Your task to perform on an android device: Open Amazon Image 0: 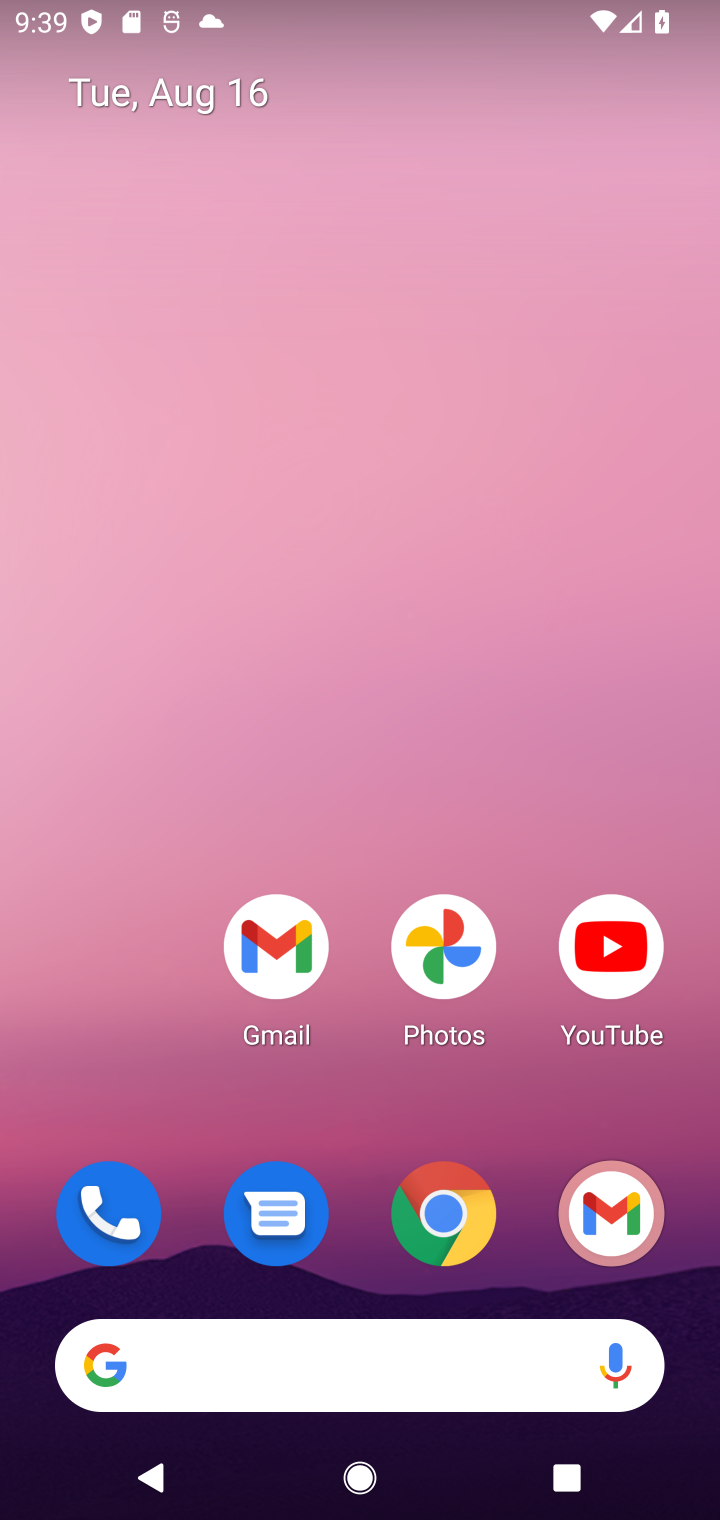
Step 0: drag from (392, 1189) to (429, 487)
Your task to perform on an android device: Open Amazon Image 1: 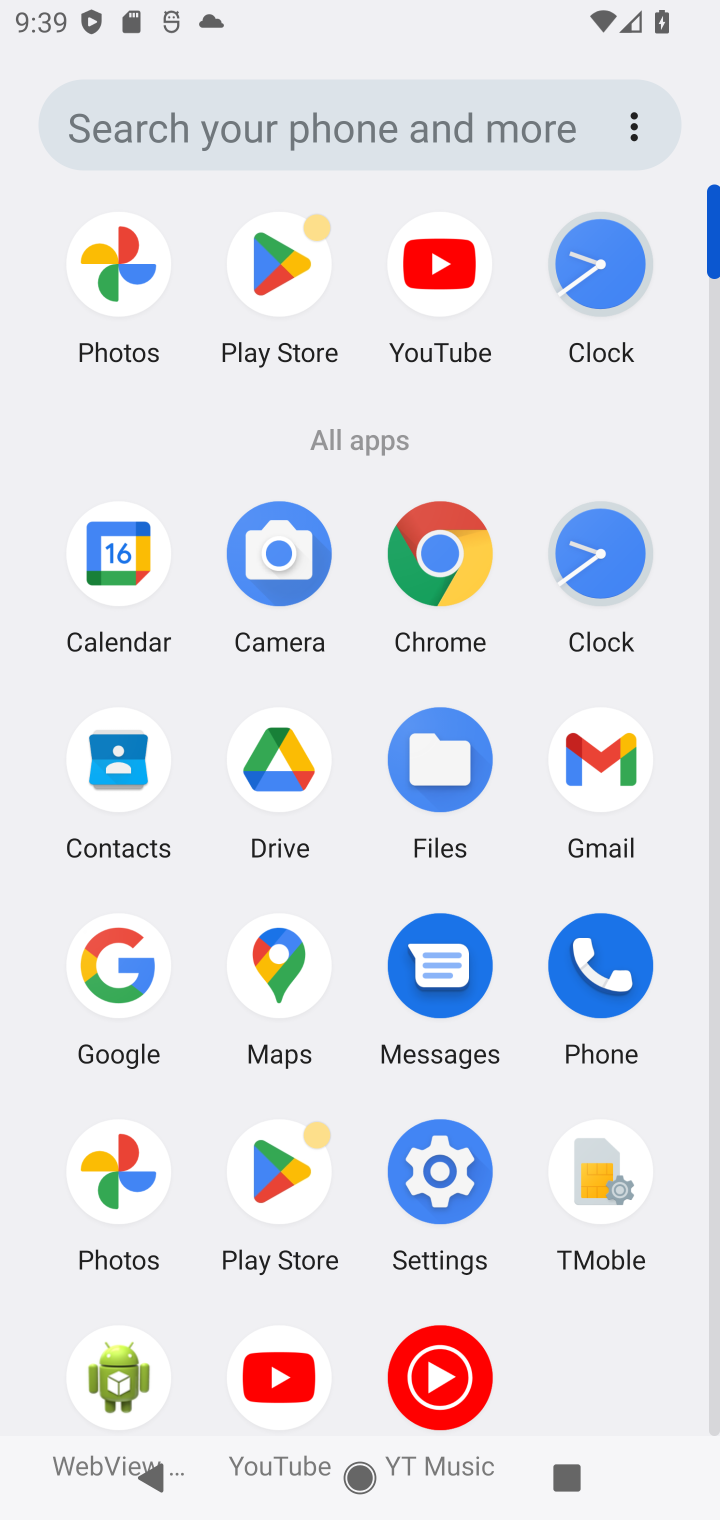
Step 1: click (435, 553)
Your task to perform on an android device: Open Amazon Image 2: 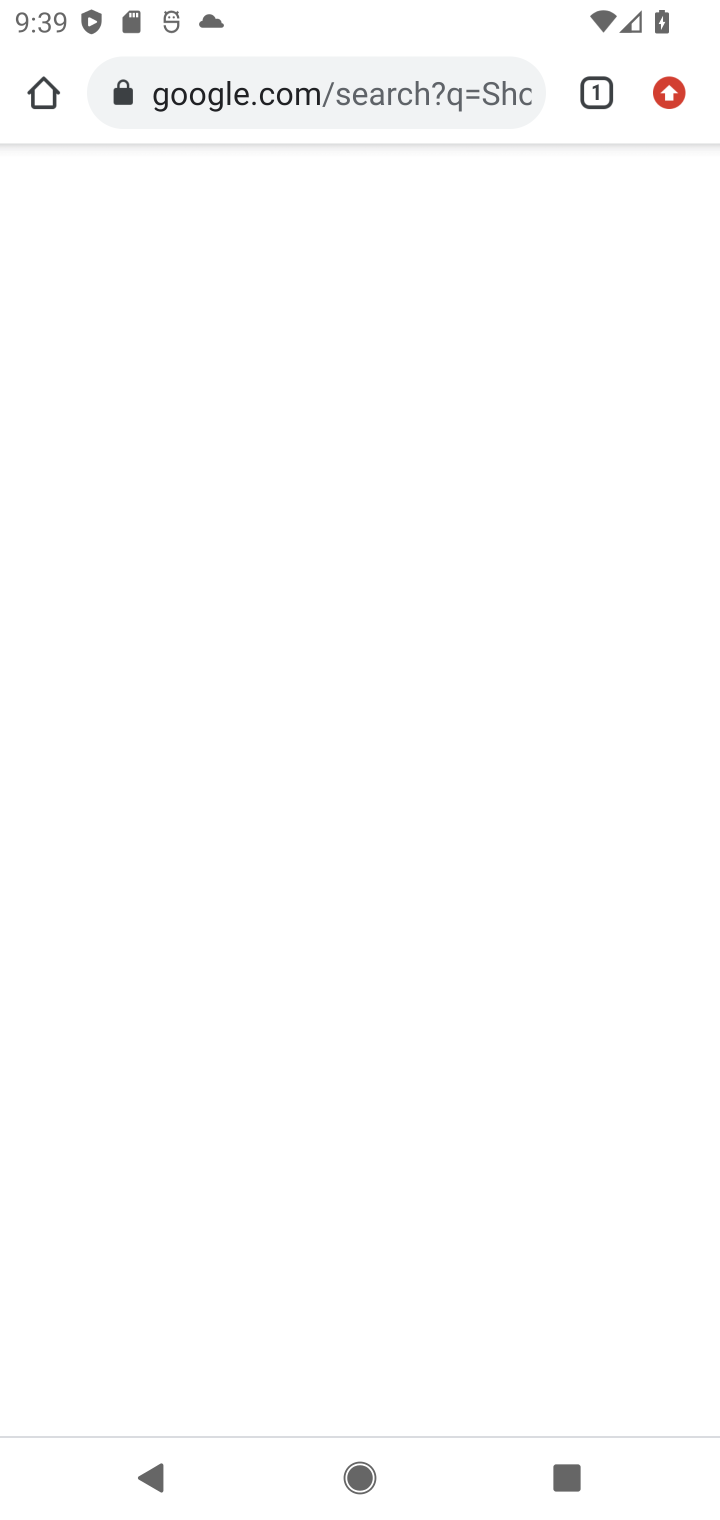
Step 2: click (697, 76)
Your task to perform on an android device: Open Amazon Image 3: 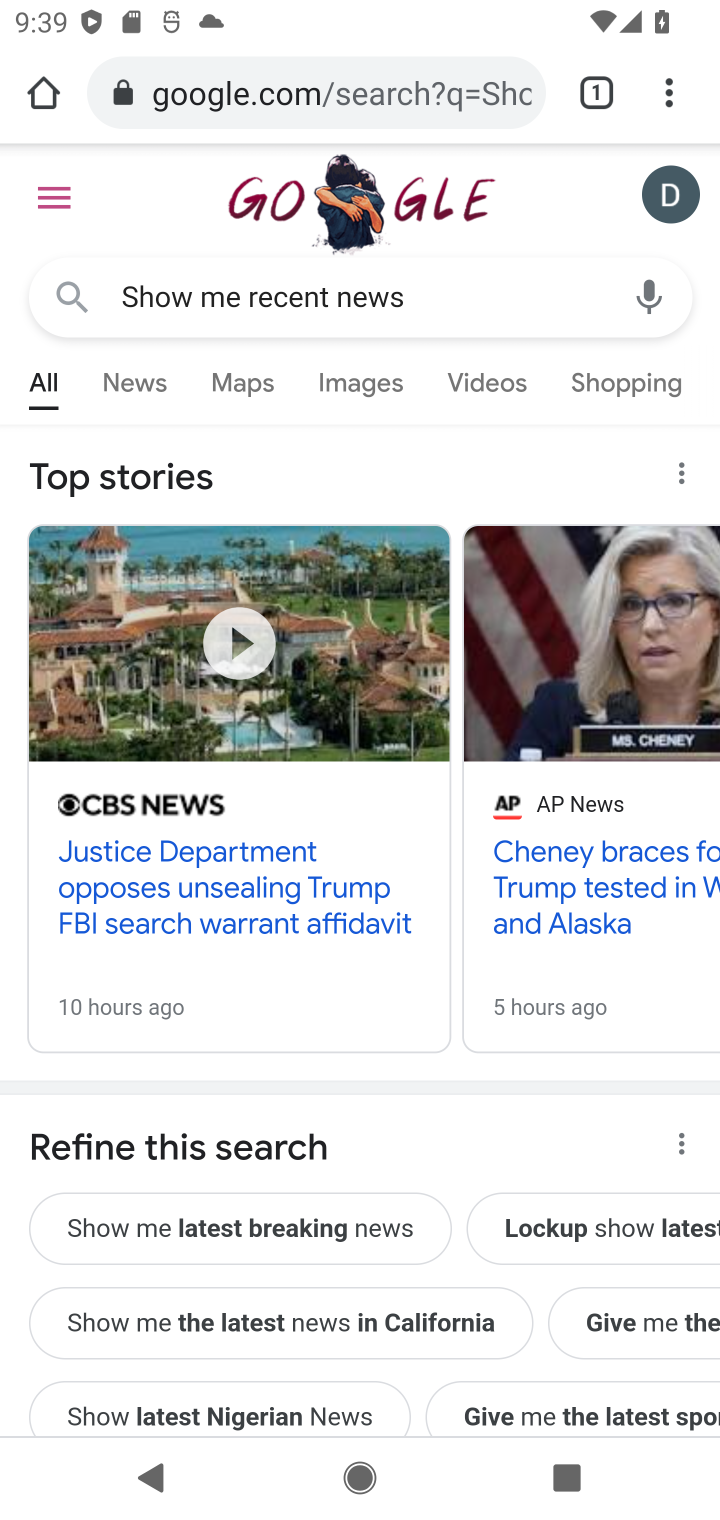
Step 3: click (695, 86)
Your task to perform on an android device: Open Amazon Image 4: 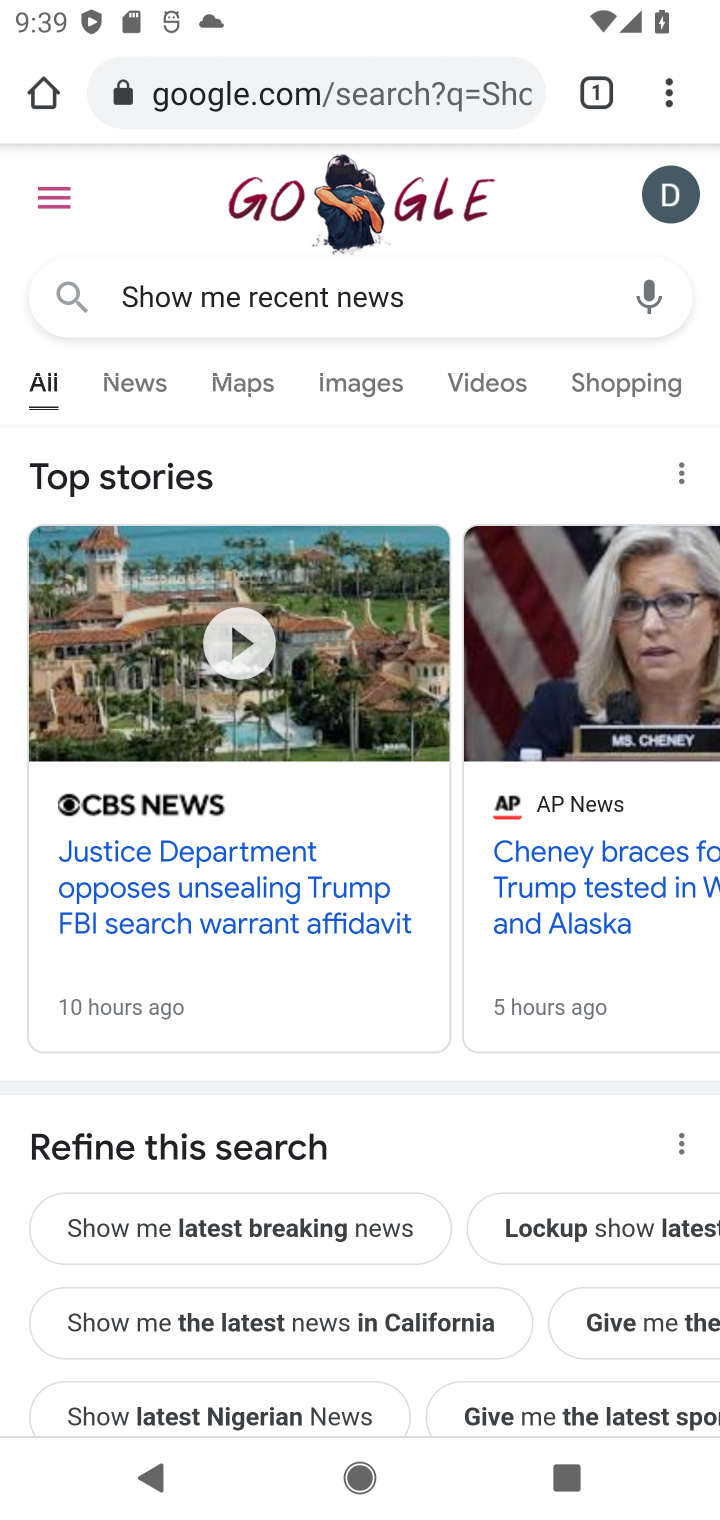
Step 4: click (659, 78)
Your task to perform on an android device: Open Amazon Image 5: 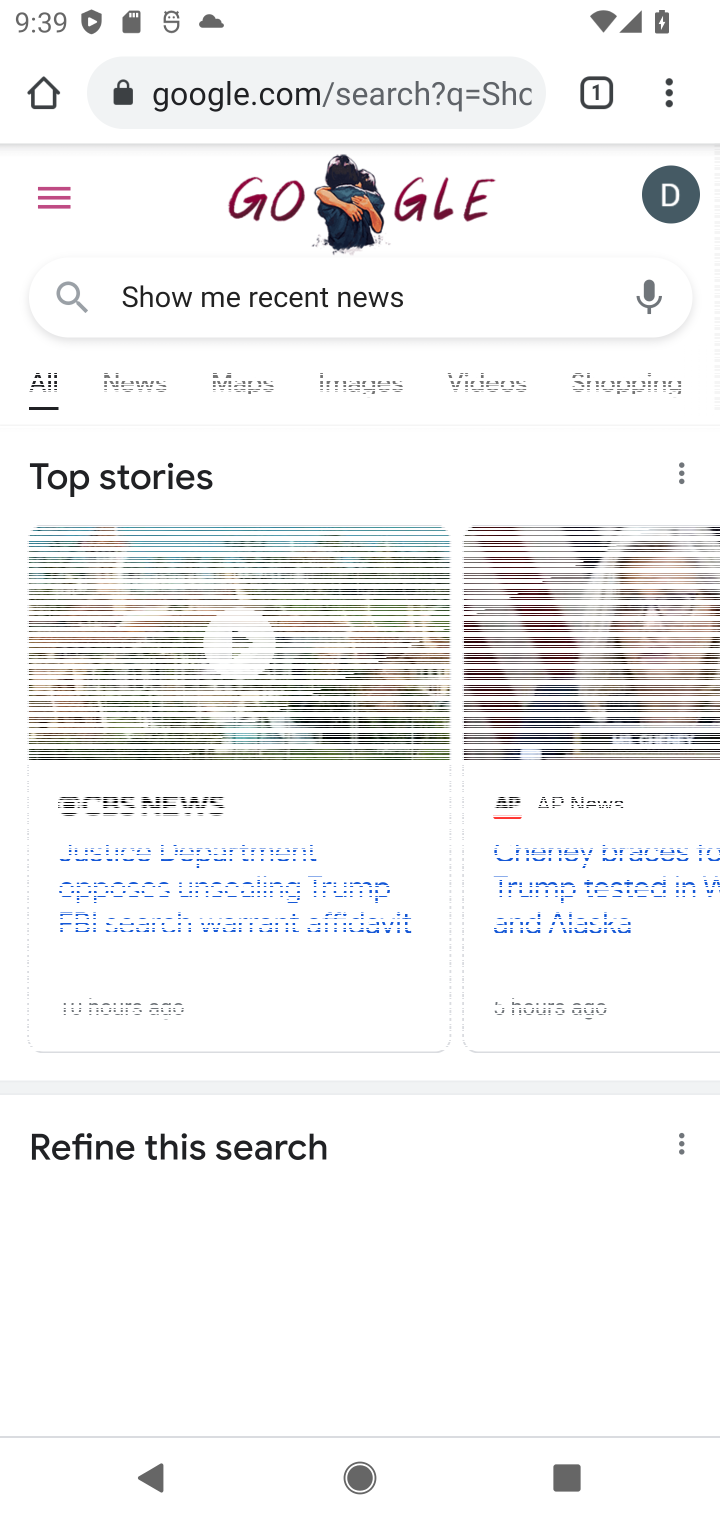
Step 5: click (693, 103)
Your task to perform on an android device: Open Amazon Image 6: 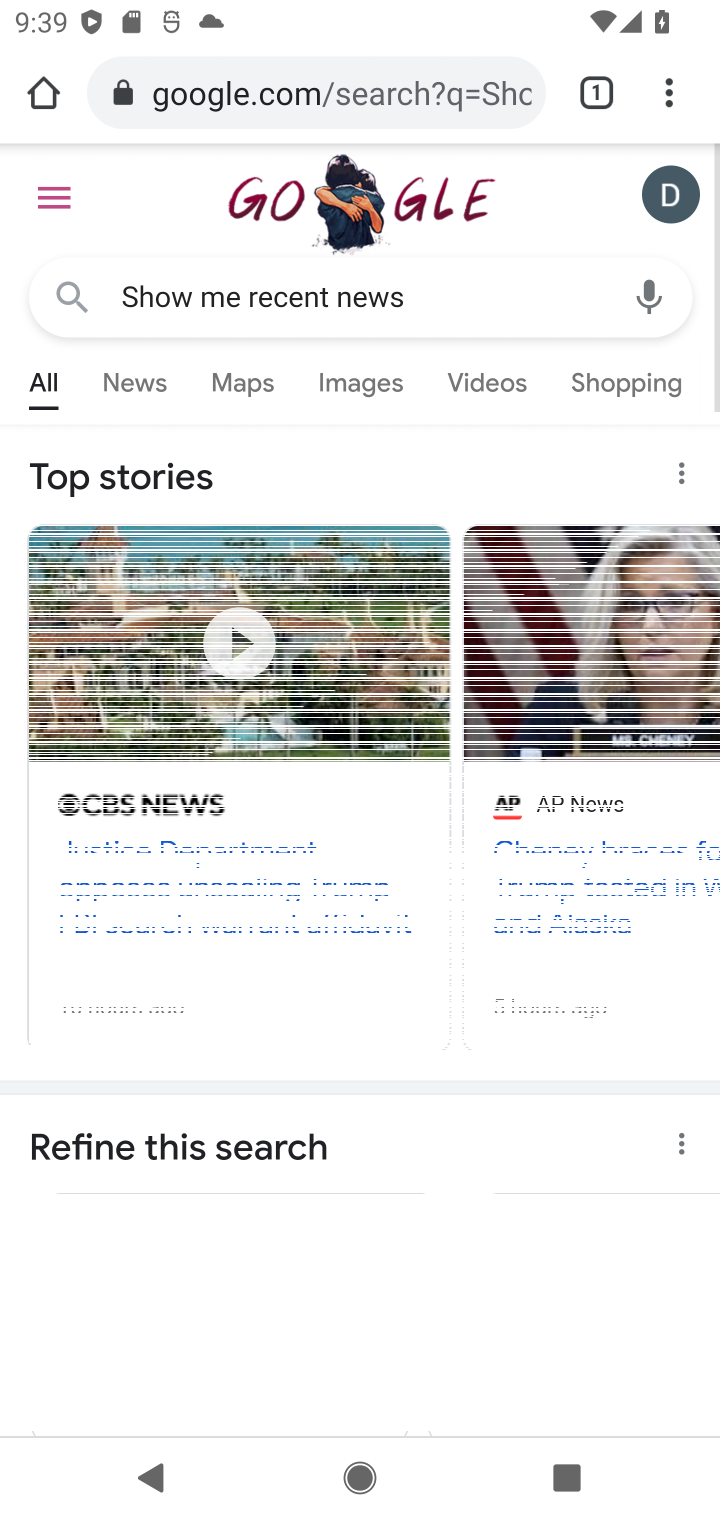
Step 6: click (670, 108)
Your task to perform on an android device: Open Amazon Image 7: 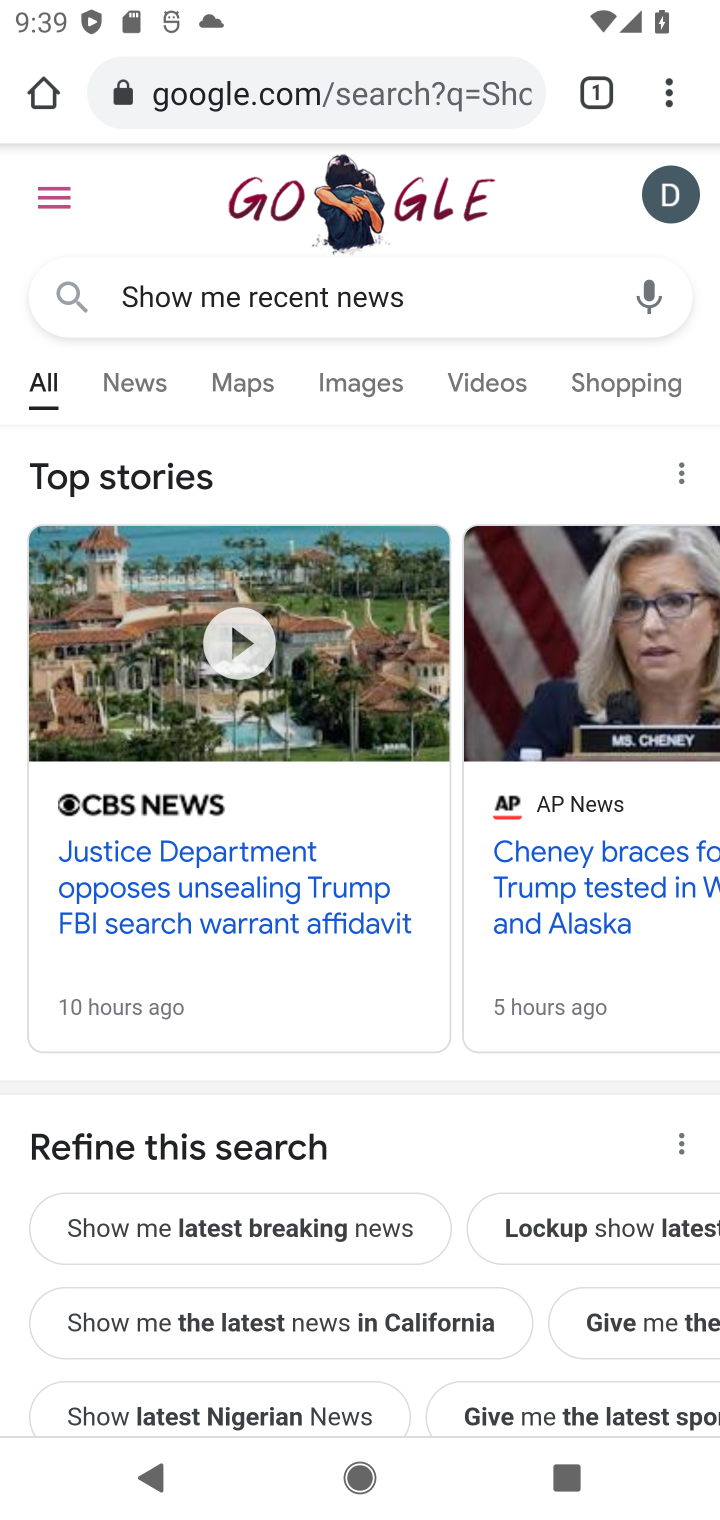
Step 7: click (662, 90)
Your task to perform on an android device: Open Amazon Image 8: 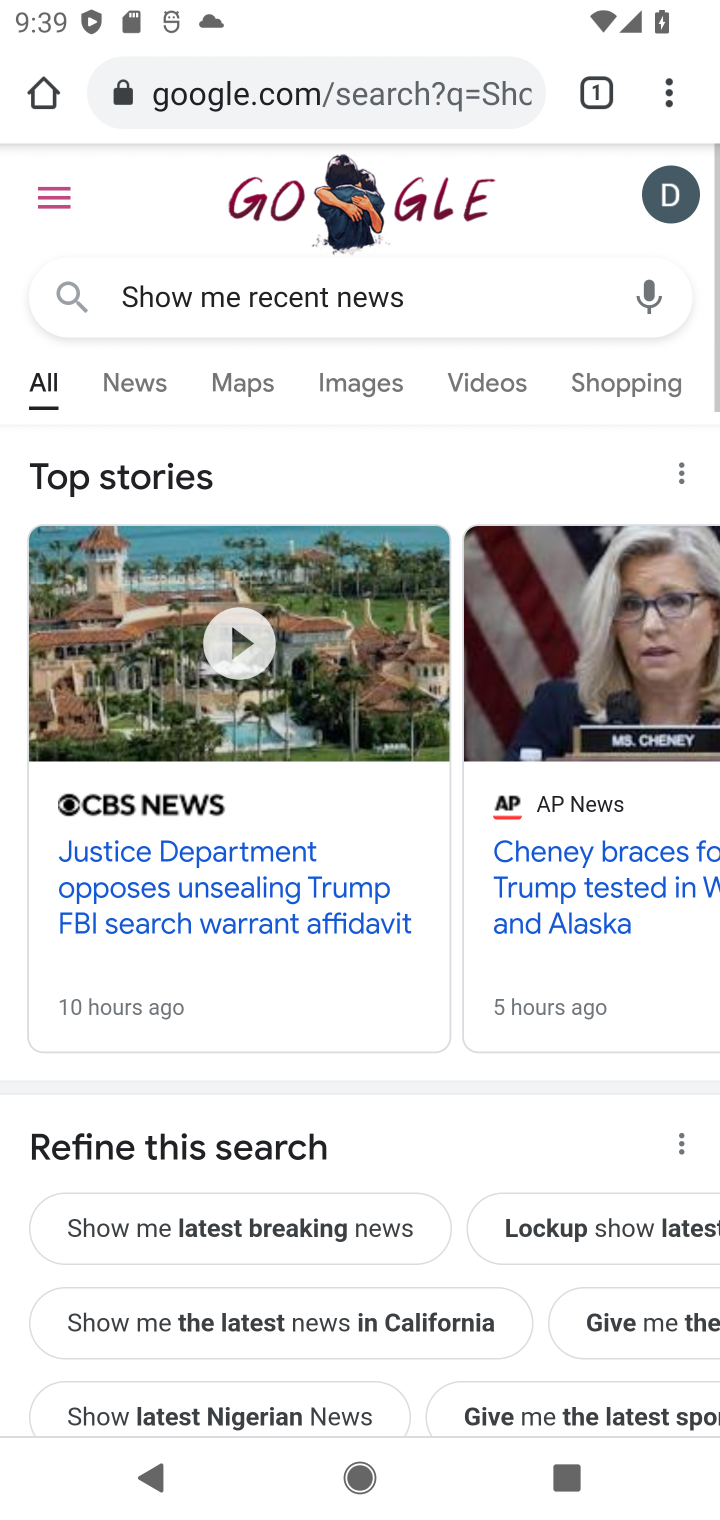
Step 8: click (660, 99)
Your task to perform on an android device: Open Amazon Image 9: 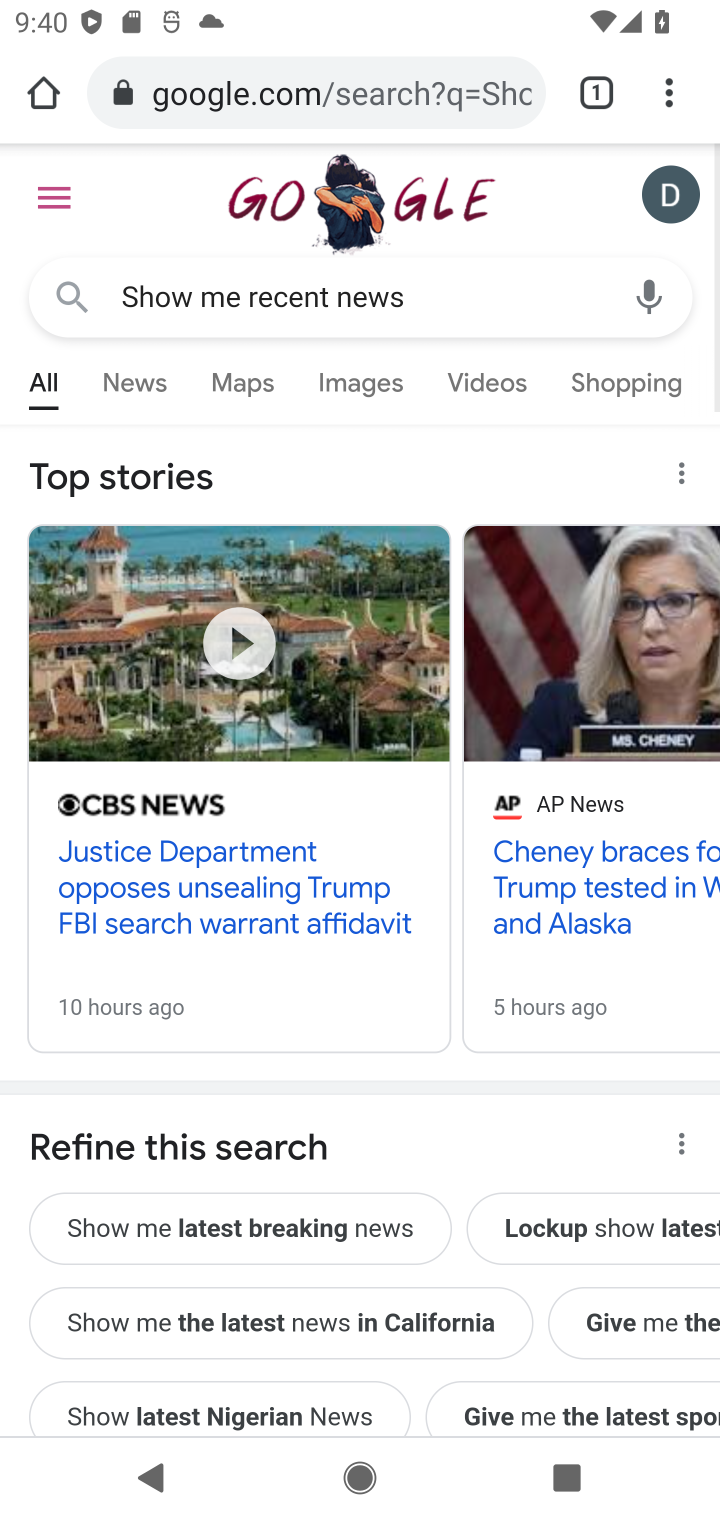
Step 9: click (683, 91)
Your task to perform on an android device: Open Amazon Image 10: 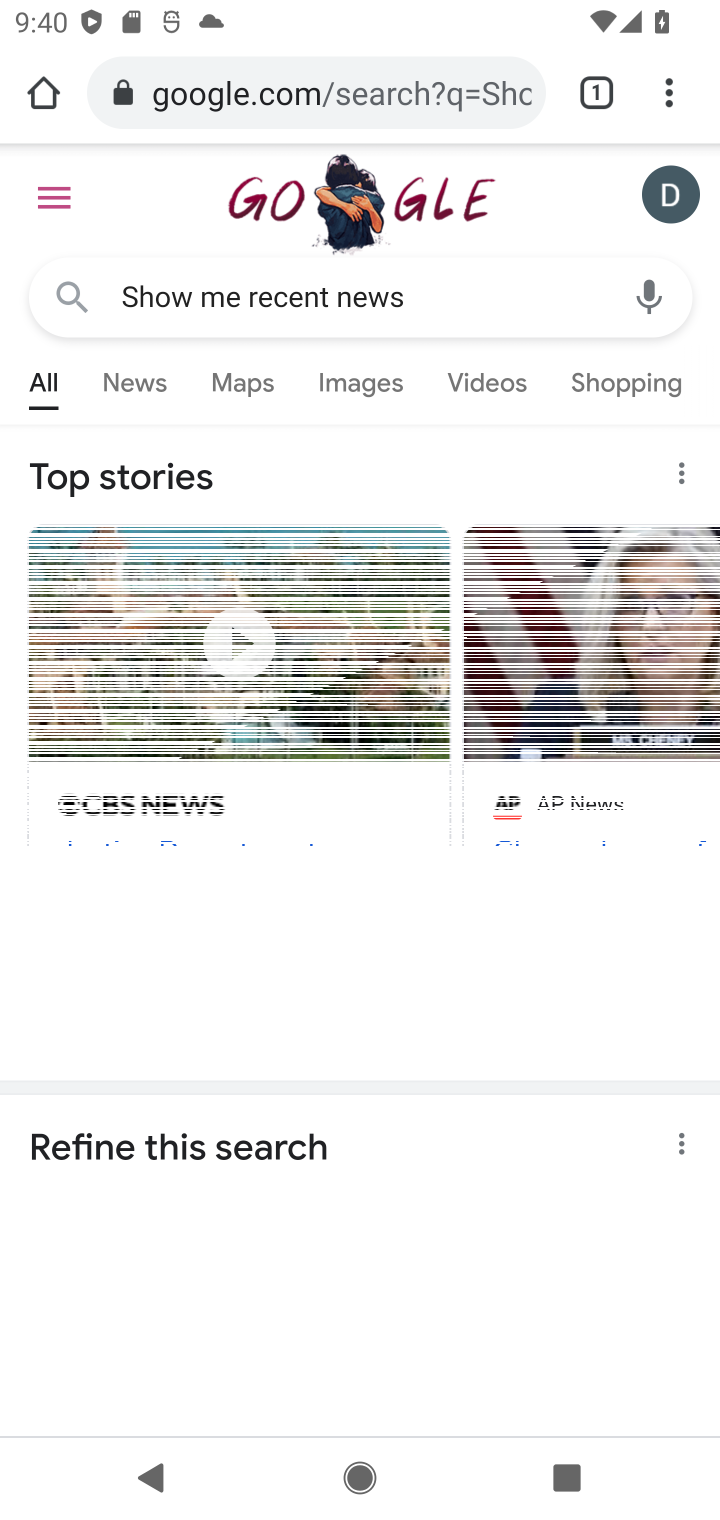
Step 10: click (651, 79)
Your task to perform on an android device: Open Amazon Image 11: 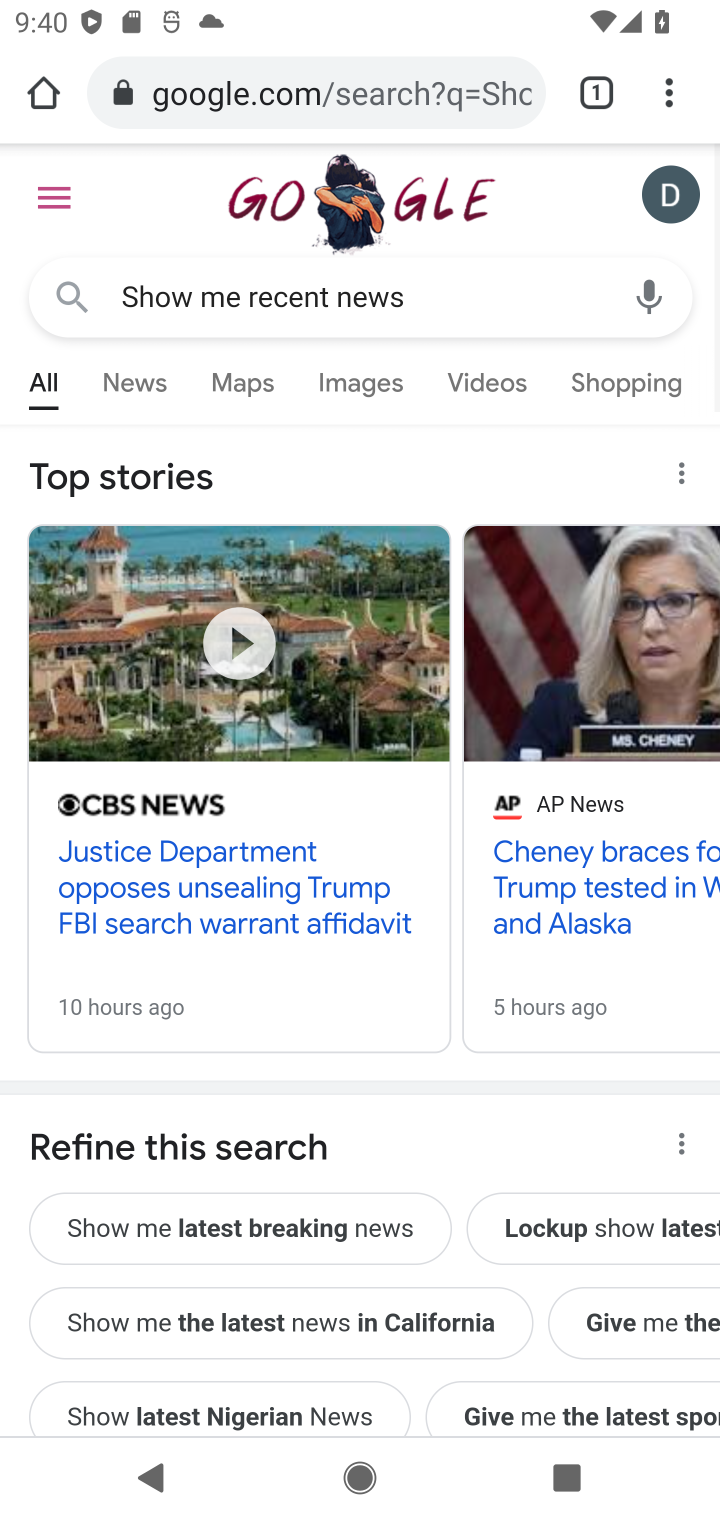
Step 11: click (655, 76)
Your task to perform on an android device: Open Amazon Image 12: 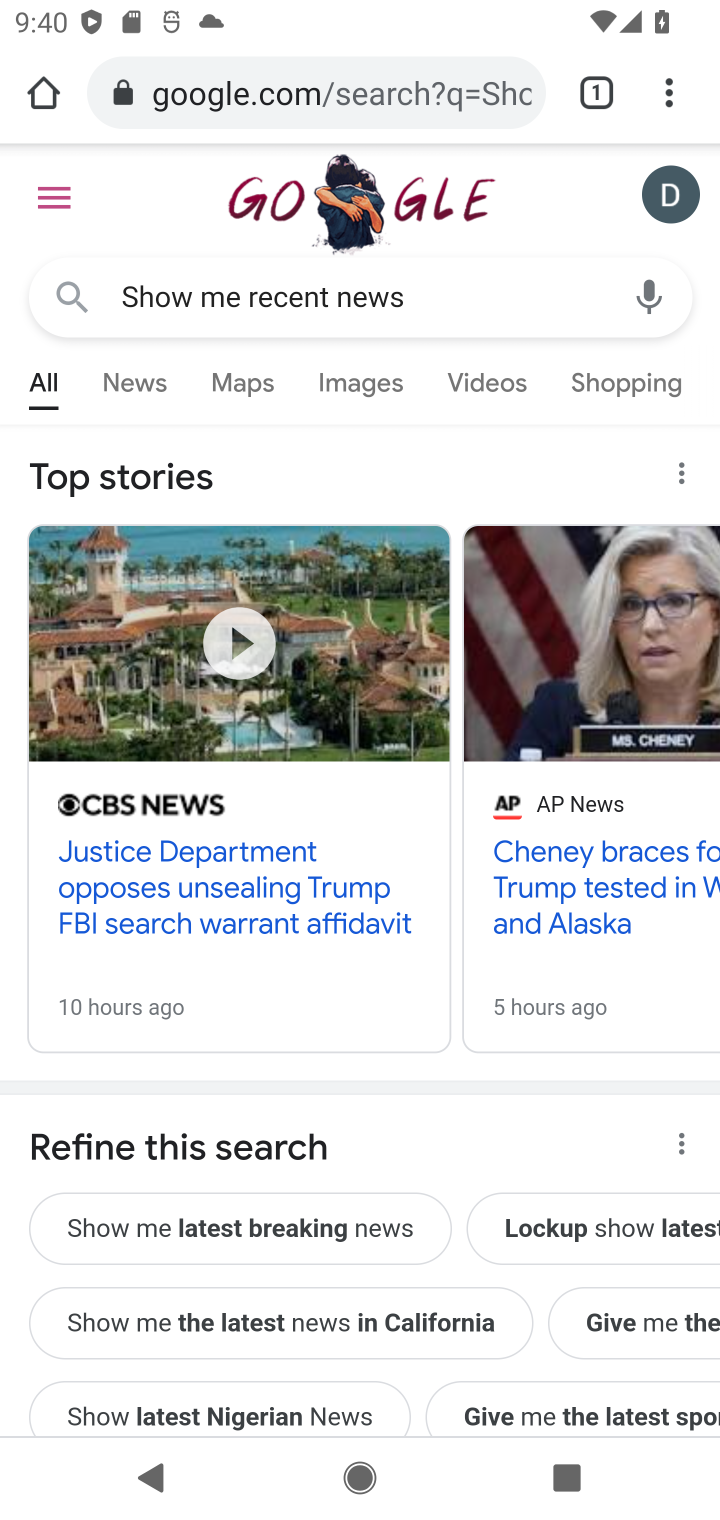
Step 12: task complete